Your task to perform on an android device: see creations saved in the google photos Image 0: 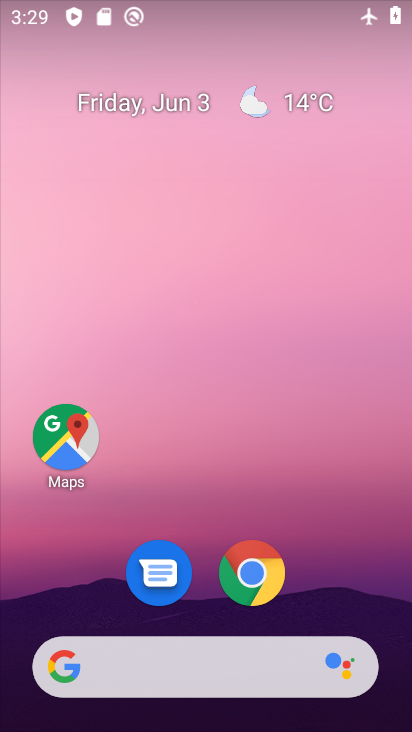
Step 0: drag from (239, 471) to (239, 293)
Your task to perform on an android device: see creations saved in the google photos Image 1: 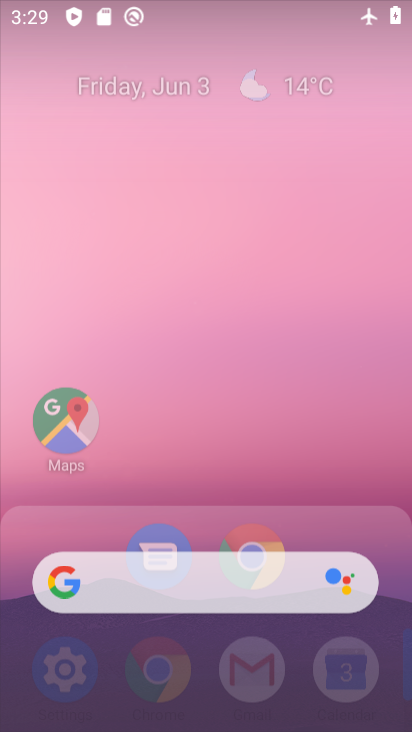
Step 1: click (213, 31)
Your task to perform on an android device: see creations saved in the google photos Image 2: 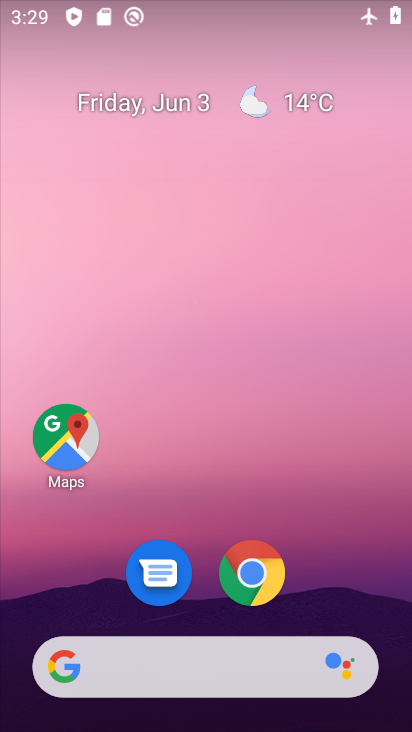
Step 2: drag from (231, 423) to (354, 22)
Your task to perform on an android device: see creations saved in the google photos Image 3: 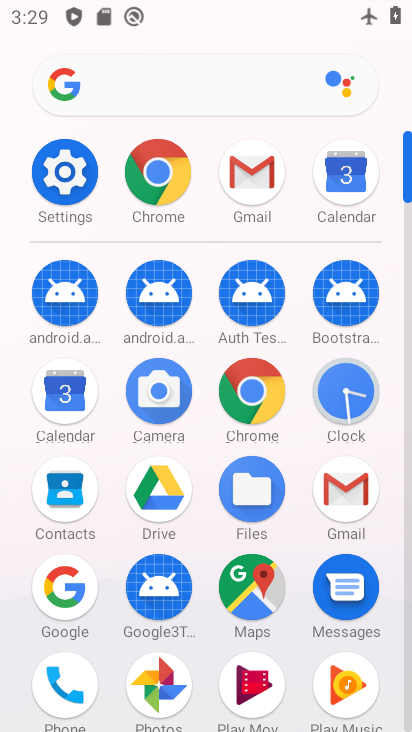
Step 3: click (159, 224)
Your task to perform on an android device: see creations saved in the google photos Image 4: 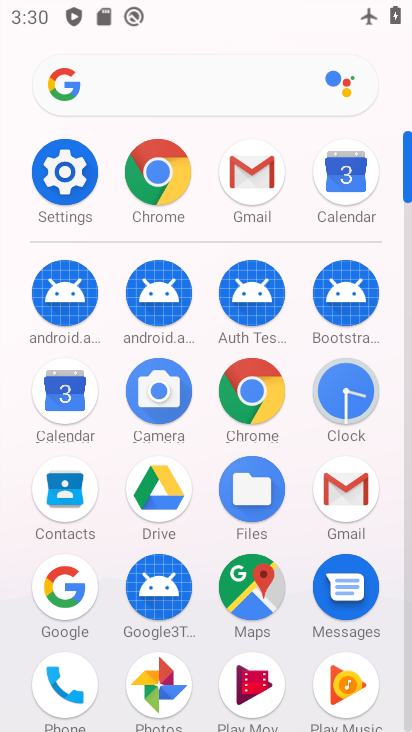
Step 4: click (156, 666)
Your task to perform on an android device: see creations saved in the google photos Image 5: 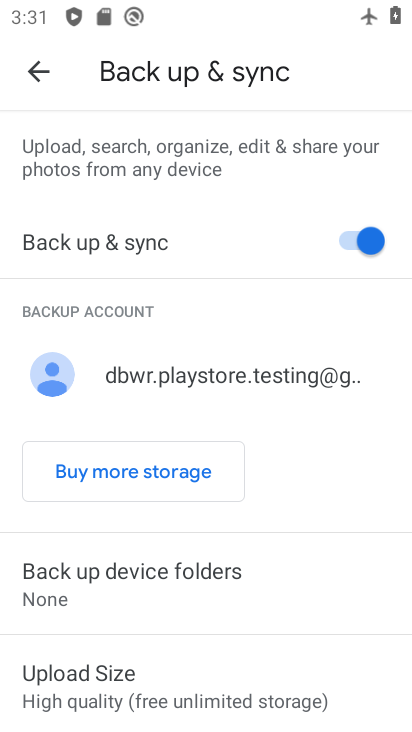
Step 5: click (33, 59)
Your task to perform on an android device: see creations saved in the google photos Image 6: 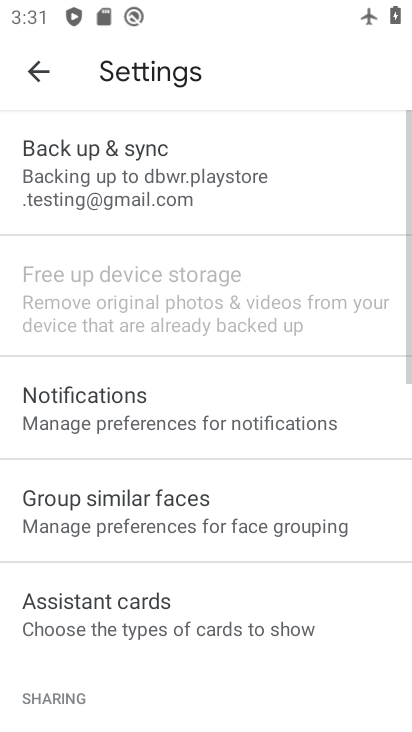
Step 6: click (48, 67)
Your task to perform on an android device: see creations saved in the google photos Image 7: 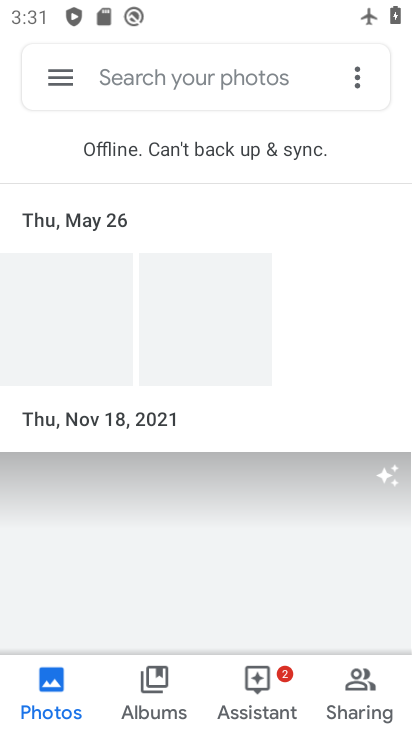
Step 7: task complete